Your task to perform on an android device: add a contact Image 0: 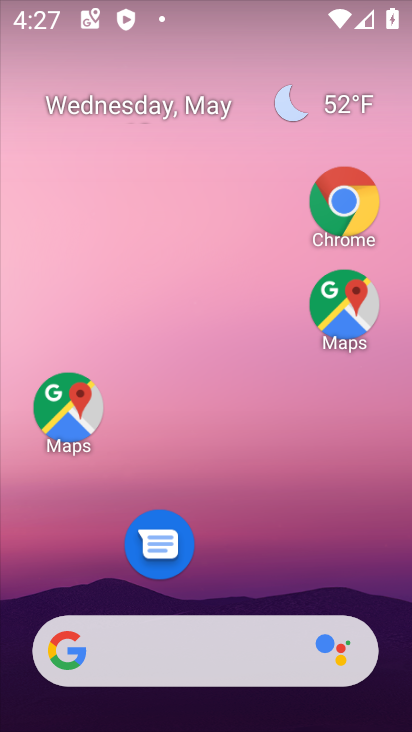
Step 0: drag from (210, 359) to (216, 26)
Your task to perform on an android device: add a contact Image 1: 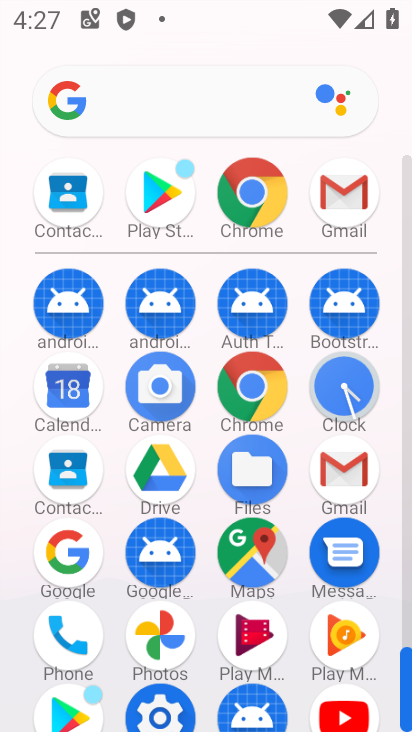
Step 1: click (75, 488)
Your task to perform on an android device: add a contact Image 2: 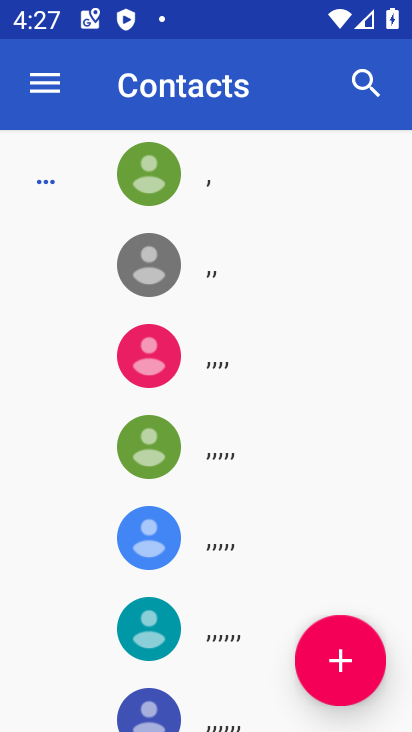
Step 2: click (335, 664)
Your task to perform on an android device: add a contact Image 3: 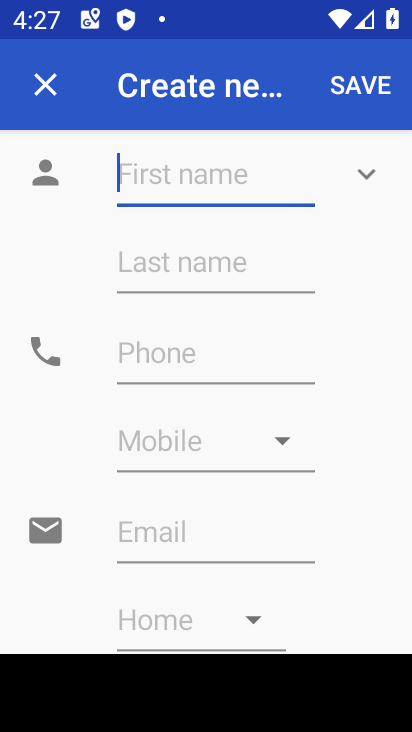
Step 3: click (205, 180)
Your task to perform on an android device: add a contact Image 4: 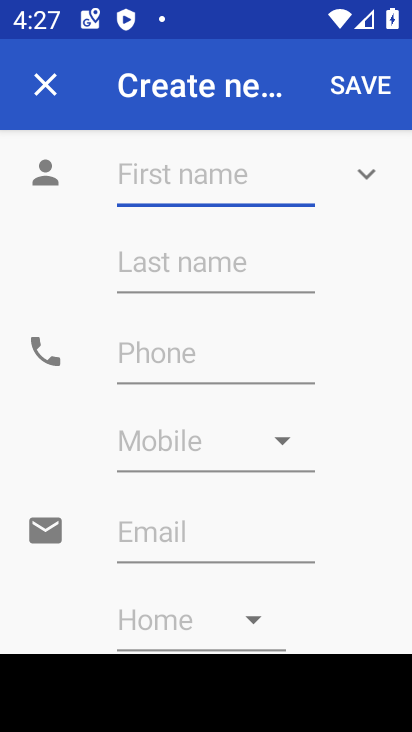
Step 4: type "tikiridha"
Your task to perform on an android device: add a contact Image 5: 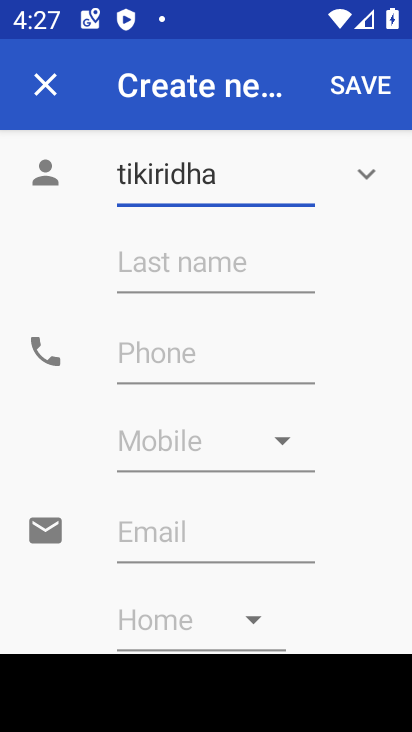
Step 5: click (194, 262)
Your task to perform on an android device: add a contact Image 6: 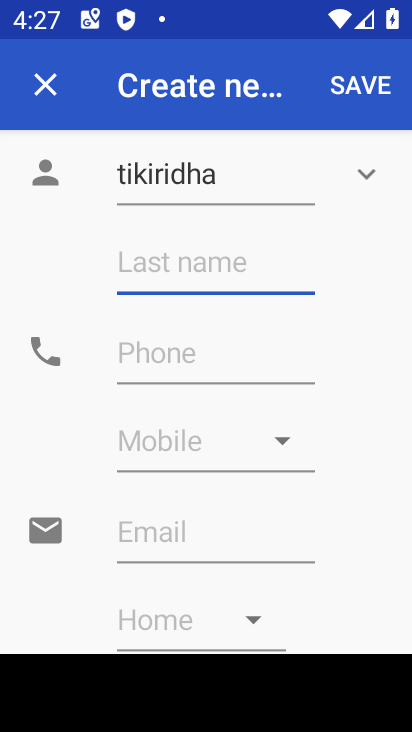
Step 6: type "sharma"
Your task to perform on an android device: add a contact Image 7: 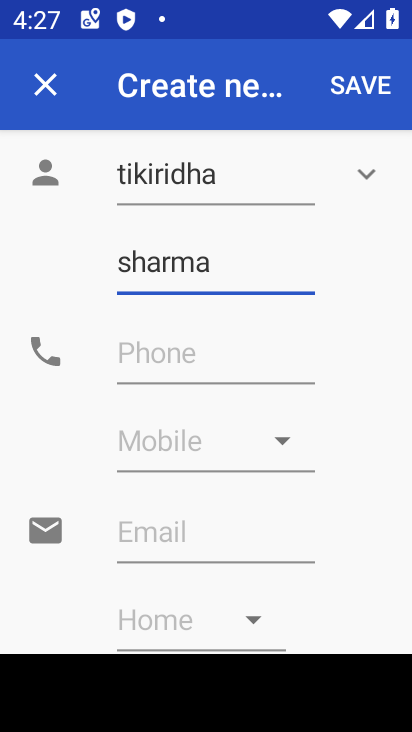
Step 7: click (143, 362)
Your task to perform on an android device: add a contact Image 8: 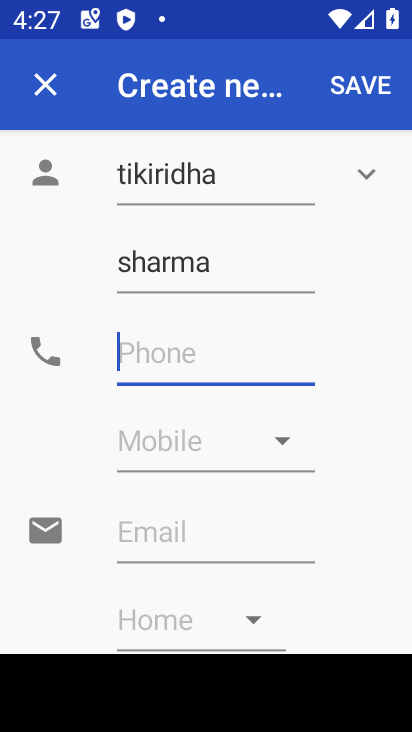
Step 8: type "012423234567"
Your task to perform on an android device: add a contact Image 9: 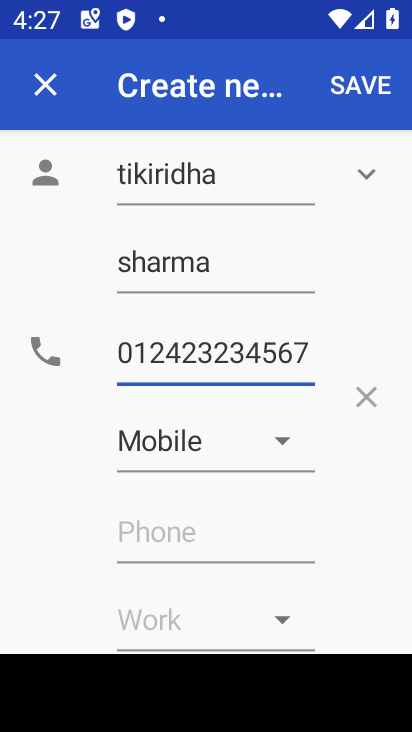
Step 9: click (306, 355)
Your task to perform on an android device: add a contact Image 10: 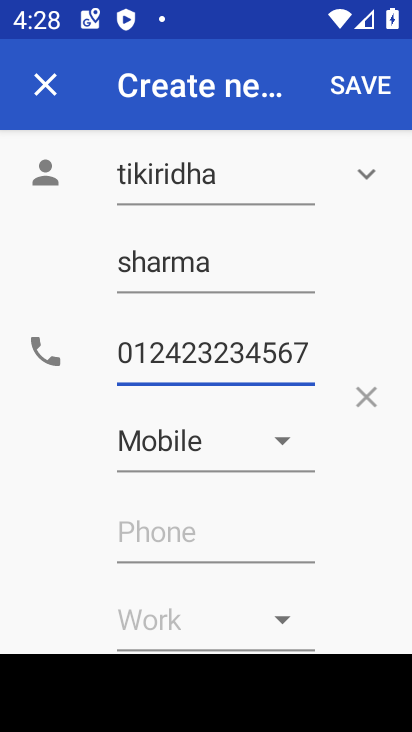
Step 10: click (375, 98)
Your task to perform on an android device: add a contact Image 11: 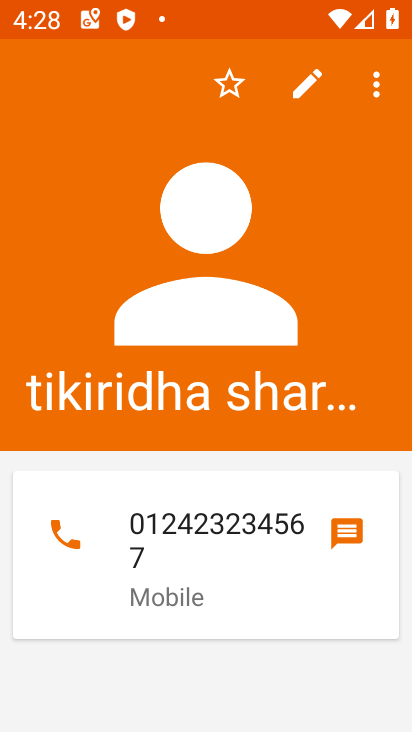
Step 11: task complete